Your task to perform on an android device: Show me popular videos on Youtube Image 0: 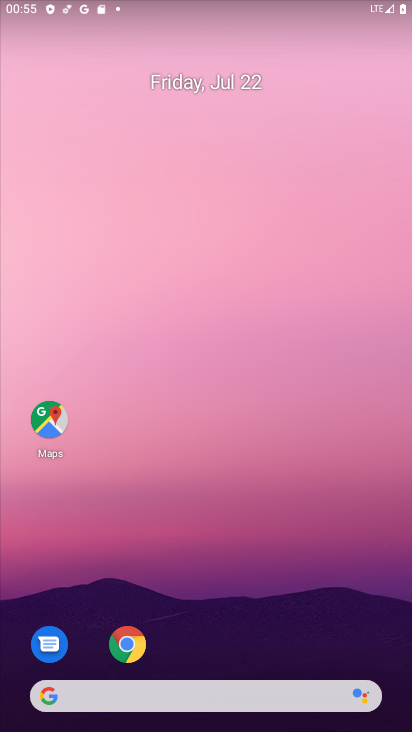
Step 0: drag from (76, 715) to (171, 112)
Your task to perform on an android device: Show me popular videos on Youtube Image 1: 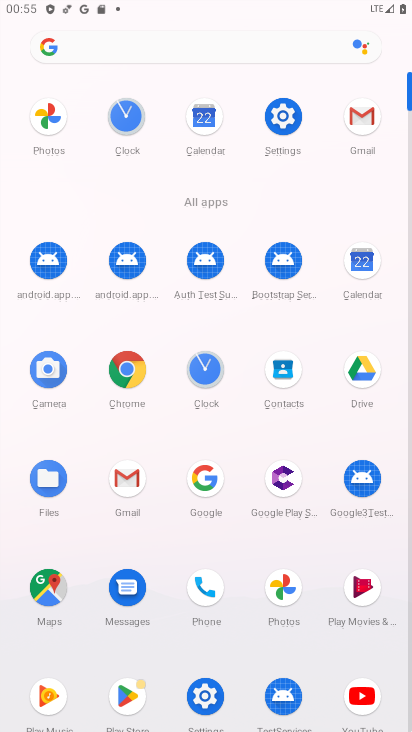
Step 1: click (363, 691)
Your task to perform on an android device: Show me popular videos on Youtube Image 2: 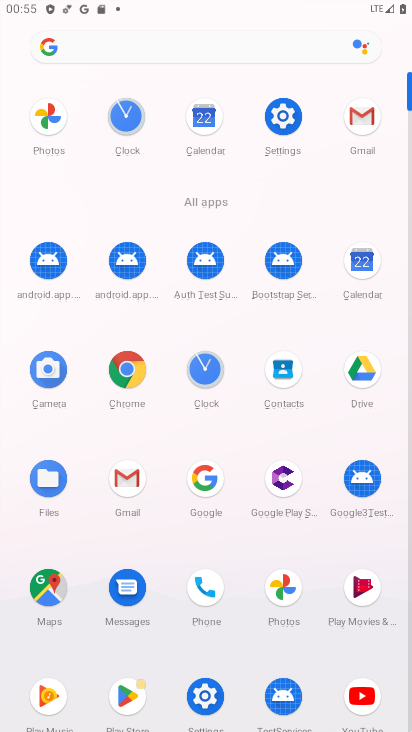
Step 2: click (363, 691)
Your task to perform on an android device: Show me popular videos on Youtube Image 3: 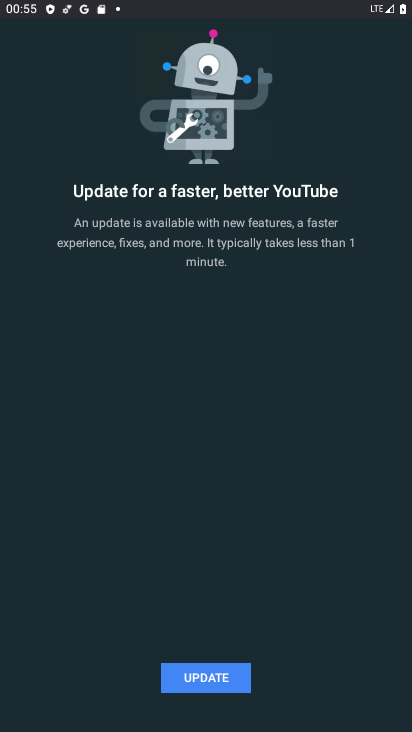
Step 3: click (198, 683)
Your task to perform on an android device: Show me popular videos on Youtube Image 4: 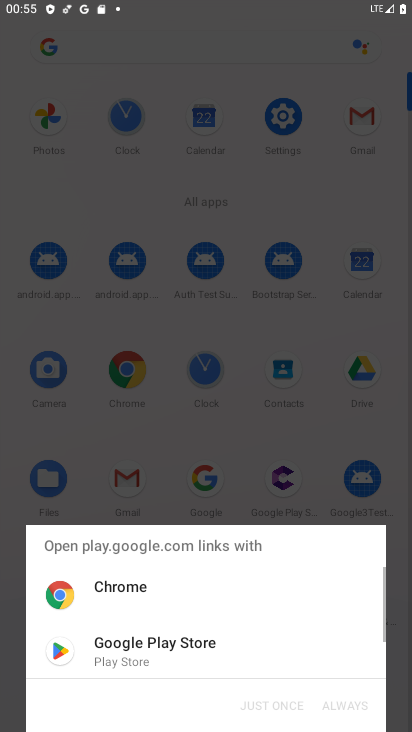
Step 4: click (172, 655)
Your task to perform on an android device: Show me popular videos on Youtube Image 5: 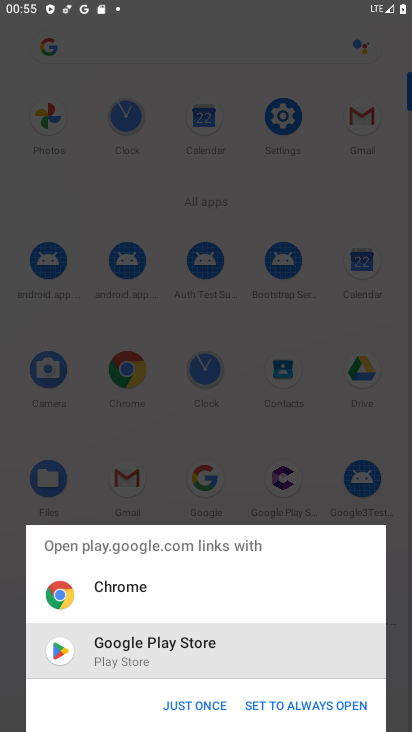
Step 5: click (205, 705)
Your task to perform on an android device: Show me popular videos on Youtube Image 6: 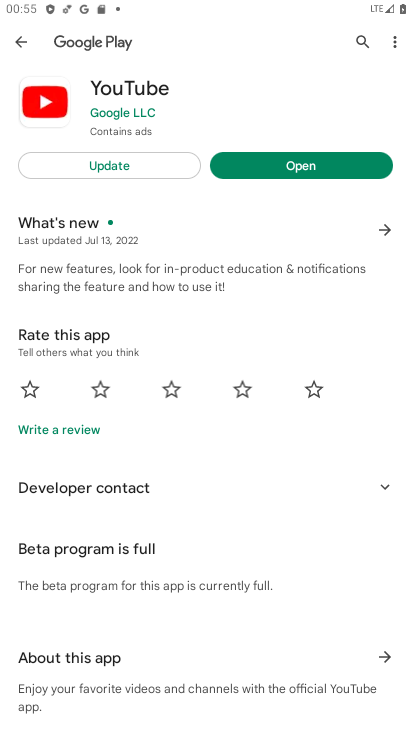
Step 6: click (140, 163)
Your task to perform on an android device: Show me popular videos on Youtube Image 7: 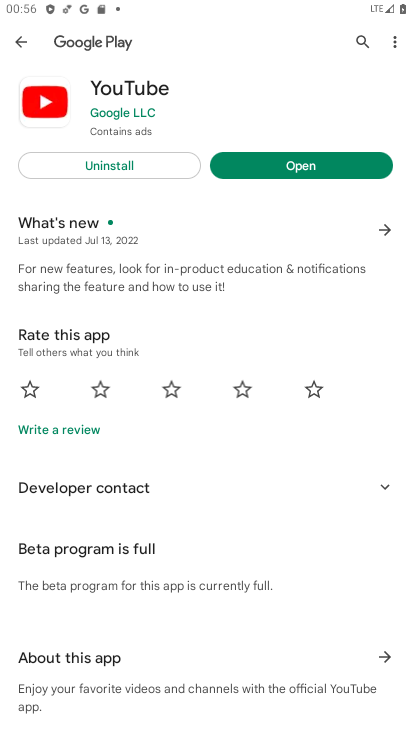
Step 7: click (305, 165)
Your task to perform on an android device: Show me popular videos on Youtube Image 8: 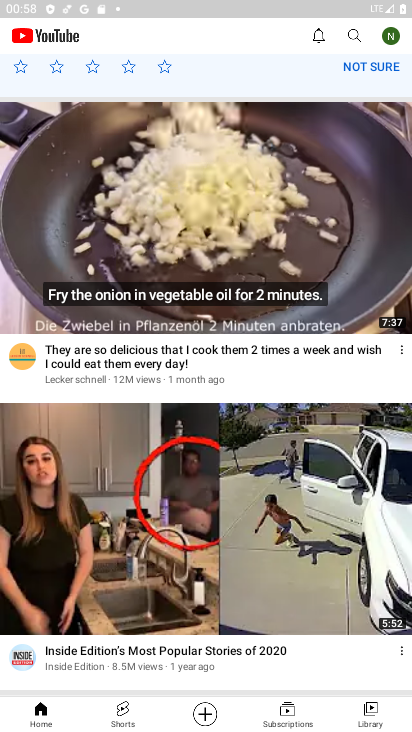
Step 8: task complete